Your task to perform on an android device: Where can I buy a nice beach sandals? Image 0: 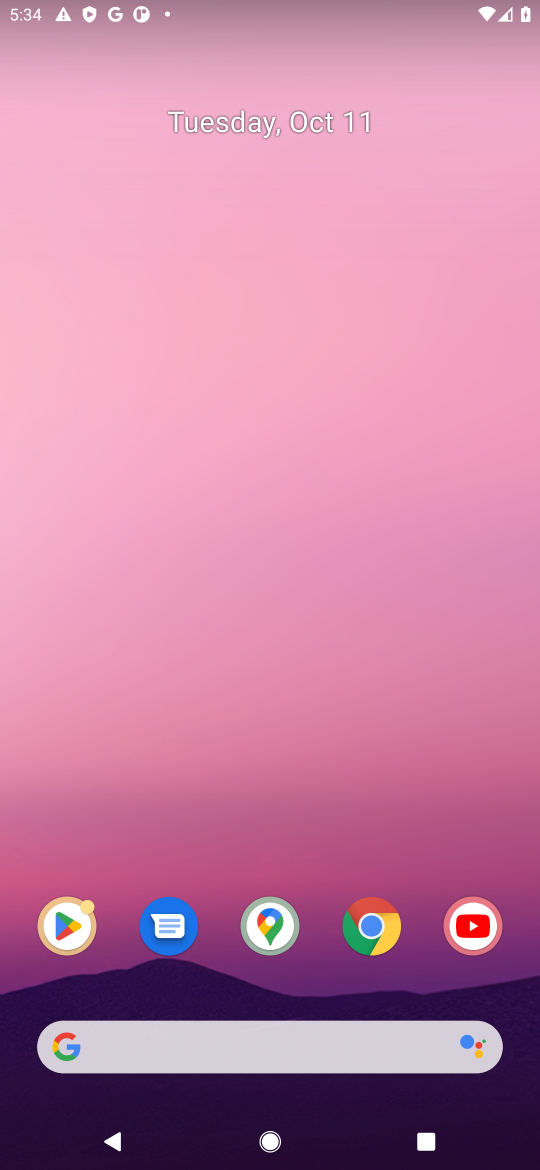
Step 0: click (282, 1045)
Your task to perform on an android device: Where can I buy a nice beach sandals? Image 1: 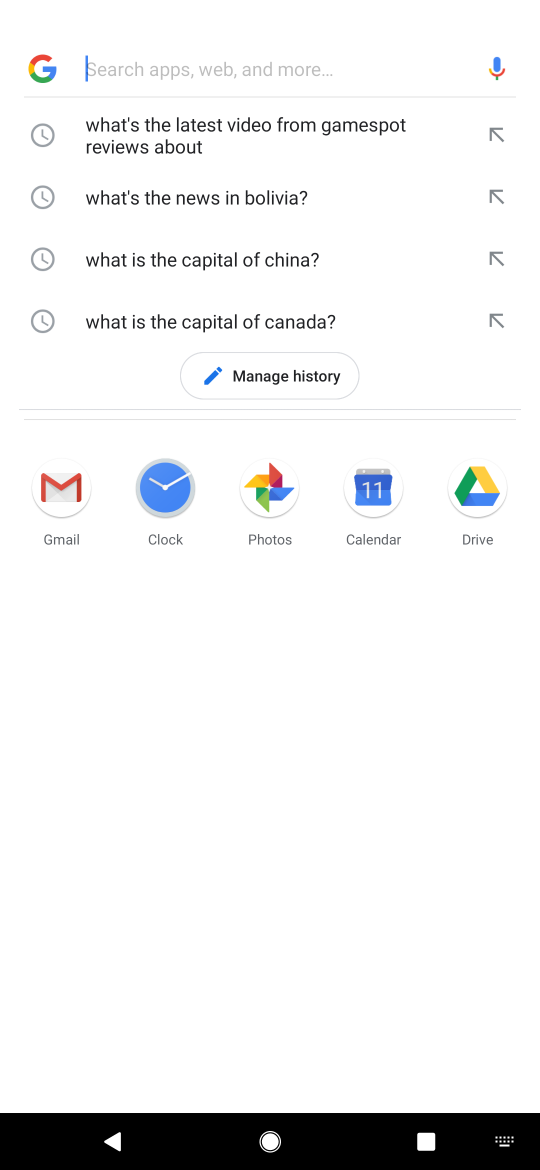
Step 1: type "Where can I buy a nice beach sandals?"
Your task to perform on an android device: Where can I buy a nice beach sandals? Image 2: 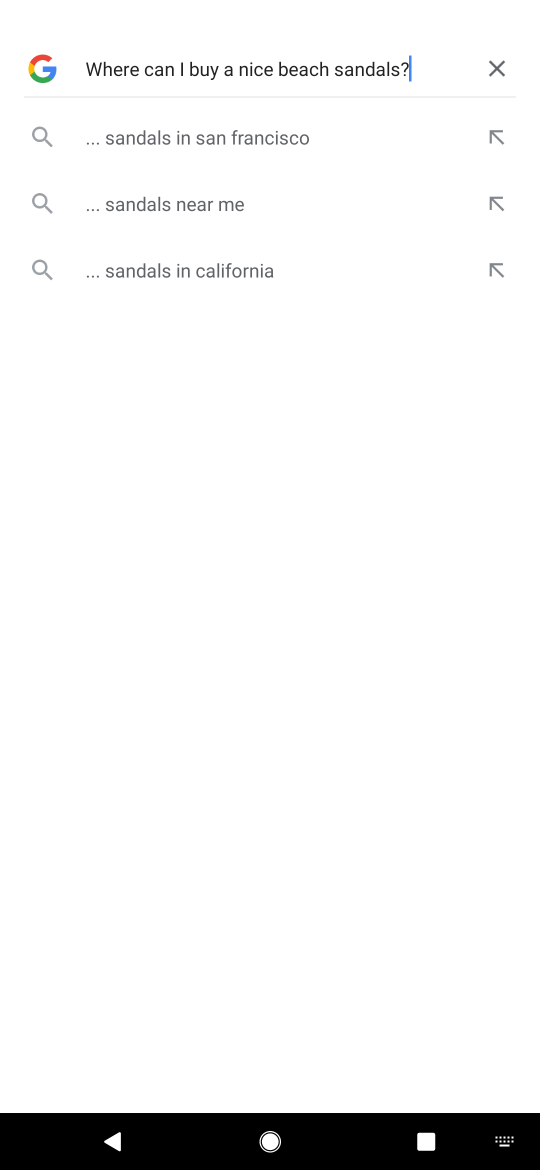
Step 2: click (155, 196)
Your task to perform on an android device: Where can I buy a nice beach sandals? Image 3: 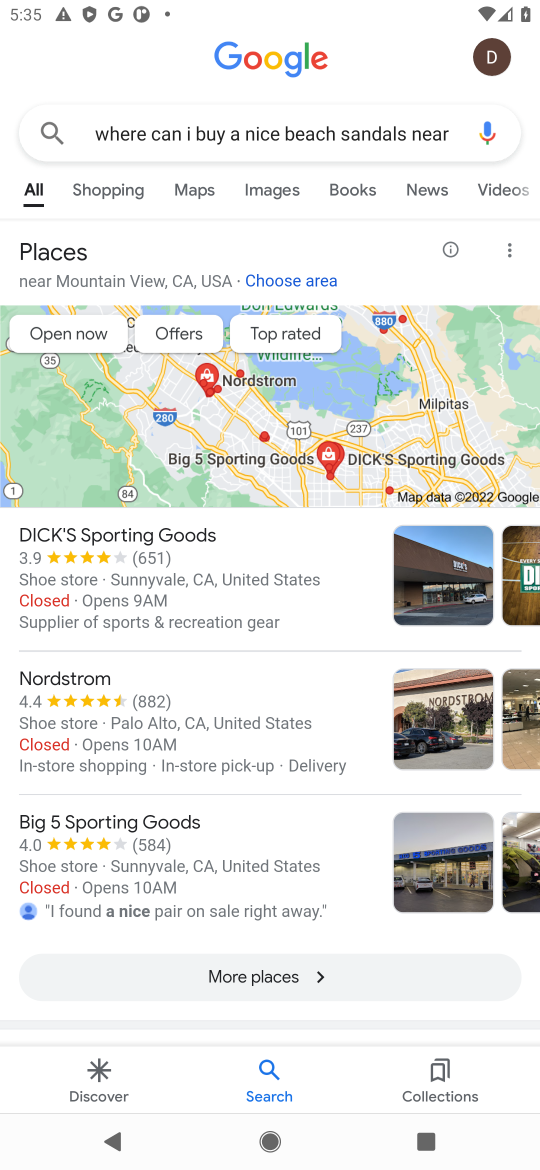
Step 3: task complete